Your task to perform on an android device: Check the news Image 0: 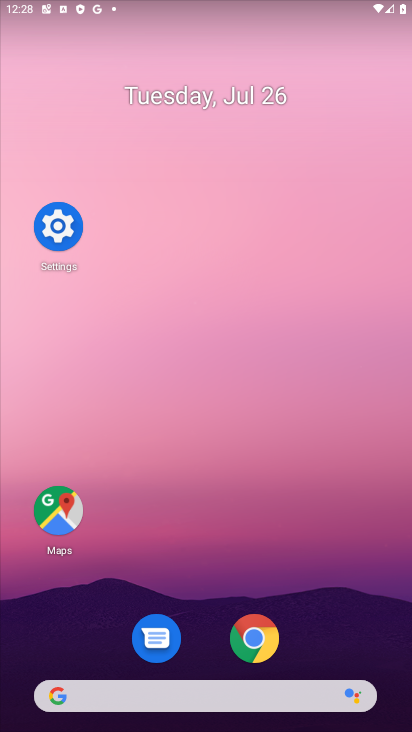
Step 0: click (262, 633)
Your task to perform on an android device: Check the news Image 1: 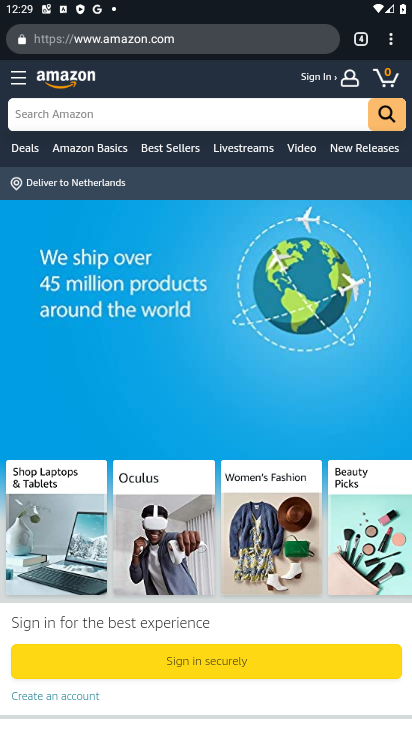
Step 1: click (362, 31)
Your task to perform on an android device: Check the news Image 2: 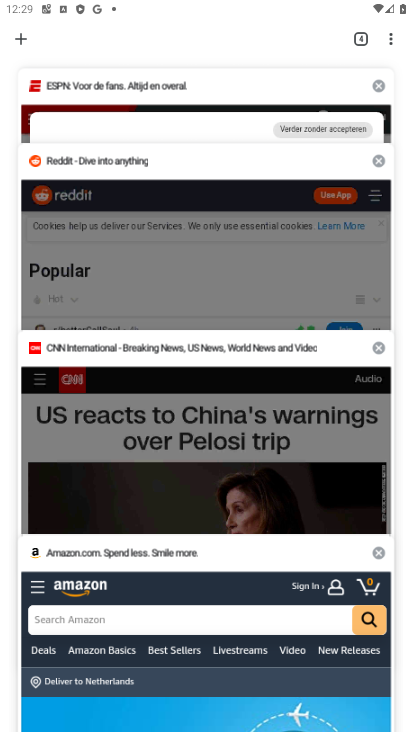
Step 2: click (20, 28)
Your task to perform on an android device: Check the news Image 3: 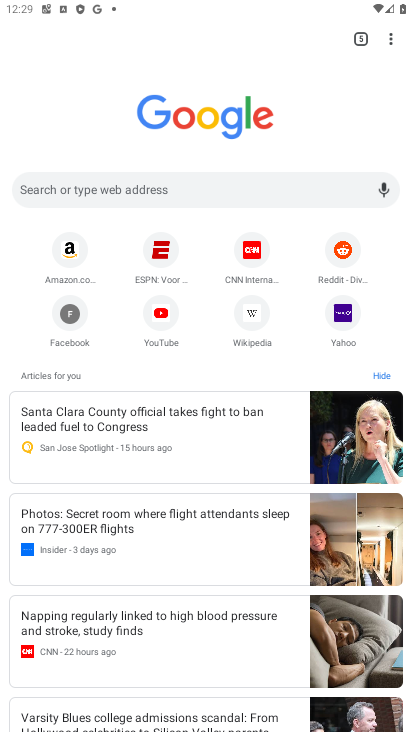
Step 3: click (295, 197)
Your task to perform on an android device: Check the news Image 4: 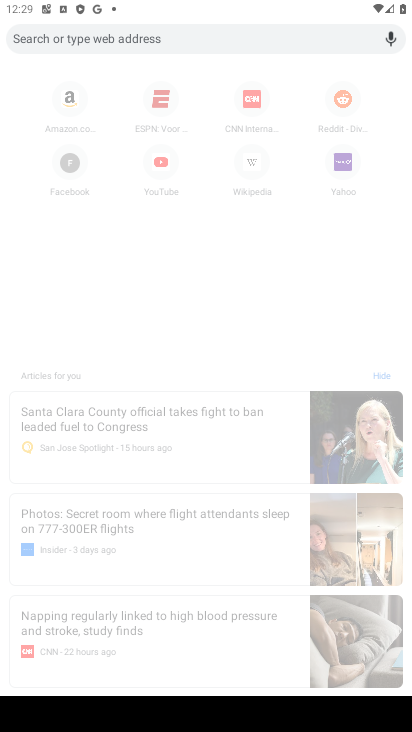
Step 4: type "news"
Your task to perform on an android device: Check the news Image 5: 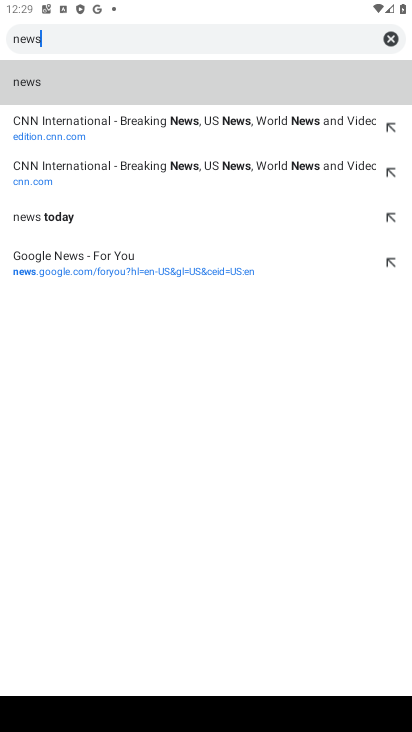
Step 5: click (112, 80)
Your task to perform on an android device: Check the news Image 6: 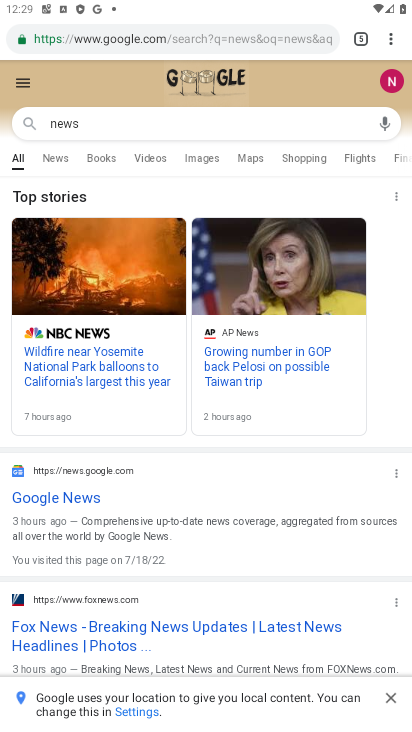
Step 6: task complete